Your task to perform on an android device: How much does a 3 bedroom apartment rent for in Denver? Image 0: 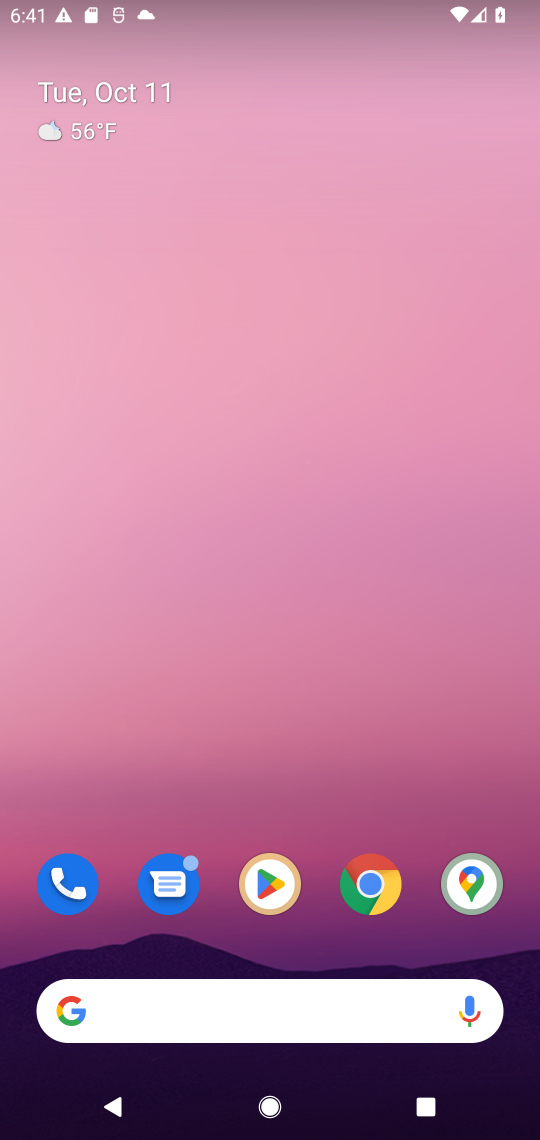
Step 0: drag from (330, 947) to (368, 63)
Your task to perform on an android device: How much does a 3 bedroom apartment rent for in Denver? Image 1: 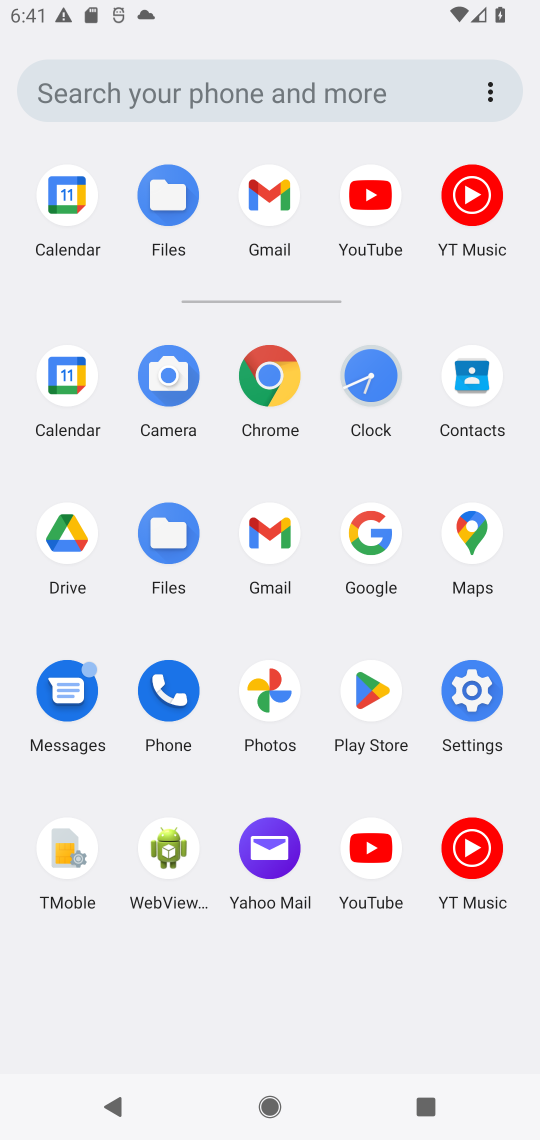
Step 1: click (273, 376)
Your task to perform on an android device: How much does a 3 bedroom apartment rent for in Denver? Image 2: 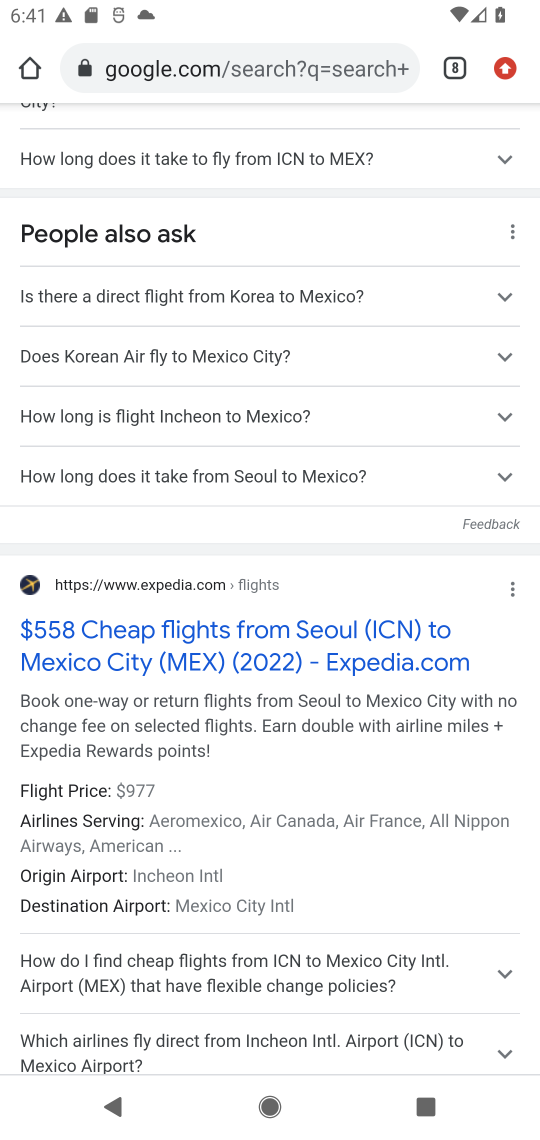
Step 2: drag from (282, 172) to (296, 869)
Your task to perform on an android device: How much does a 3 bedroom apartment rent for in Denver? Image 3: 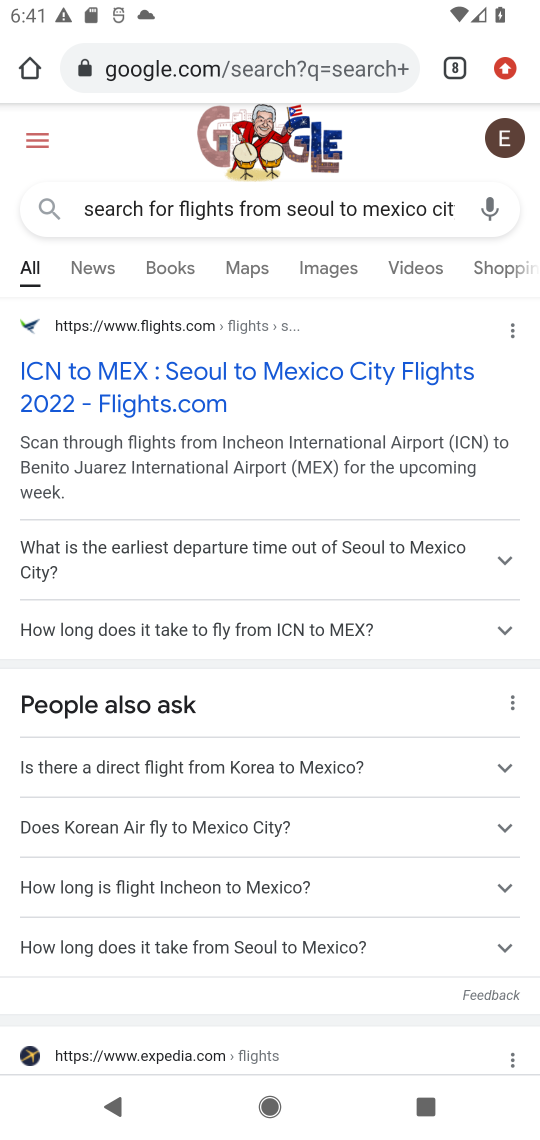
Step 3: click (305, 205)
Your task to perform on an android device: How much does a 3 bedroom apartment rent for in Denver? Image 4: 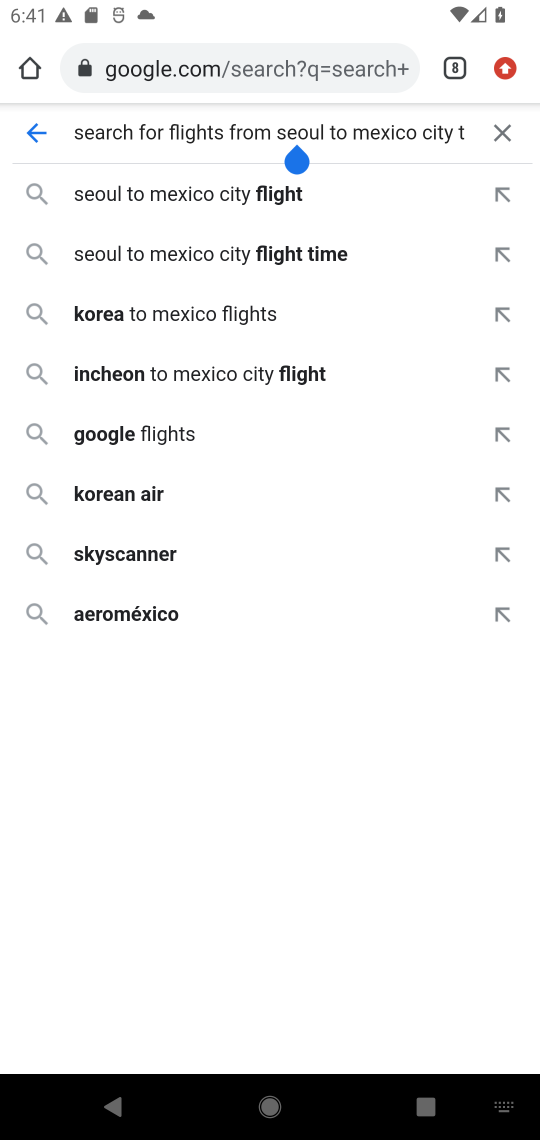
Step 4: click (498, 132)
Your task to perform on an android device: How much does a 3 bedroom apartment rent for in Denver? Image 5: 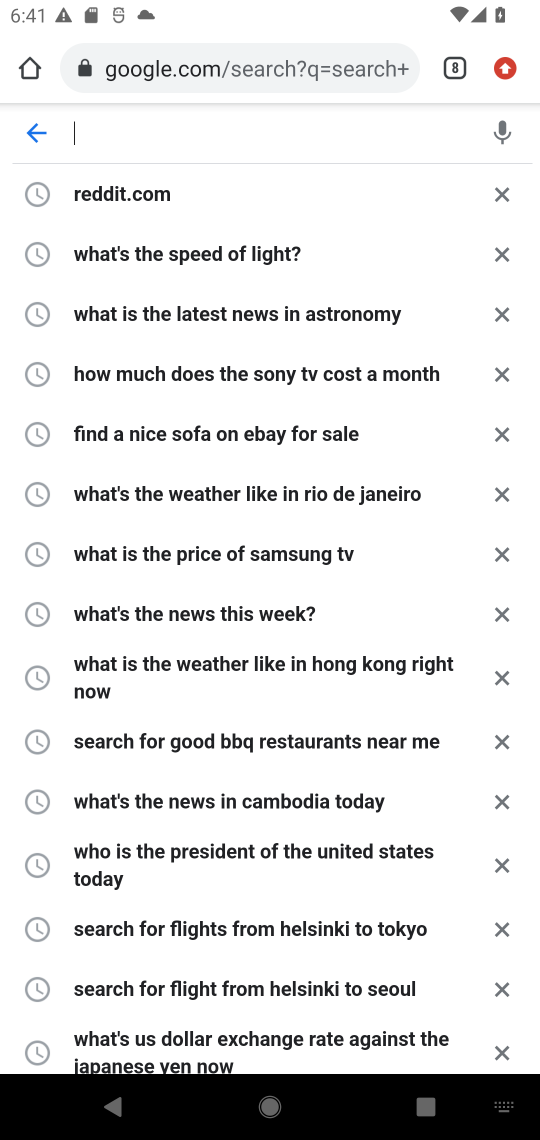
Step 5: type "How much does a 3 bedroom apartment rent for in Denver?"
Your task to perform on an android device: How much does a 3 bedroom apartment rent for in Denver? Image 6: 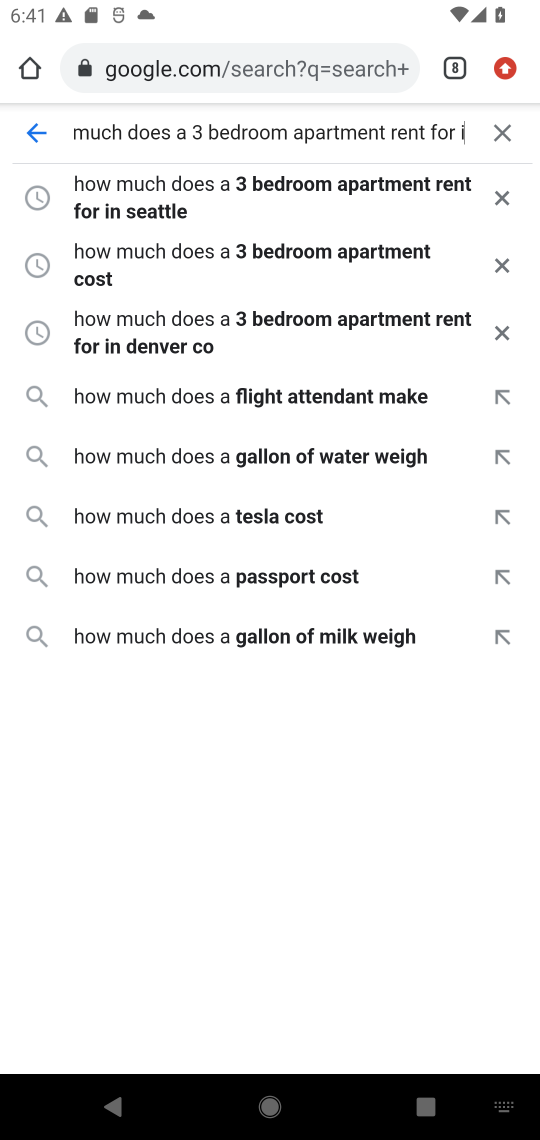
Step 6: type ""
Your task to perform on an android device: How much does a 3 bedroom apartment rent for in Denver? Image 7: 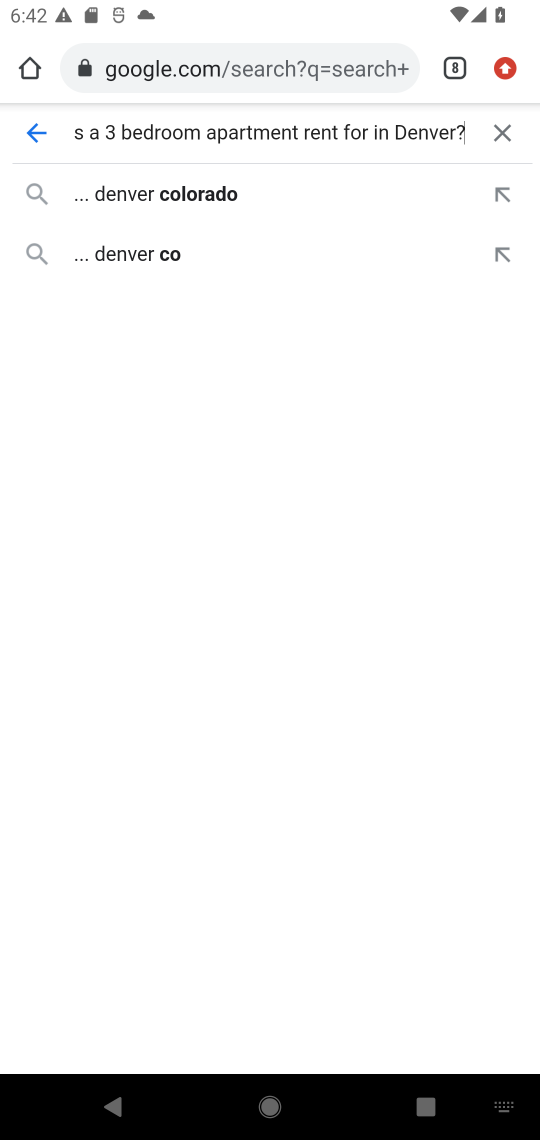
Step 7: click (227, 200)
Your task to perform on an android device: How much does a 3 bedroom apartment rent for in Denver? Image 8: 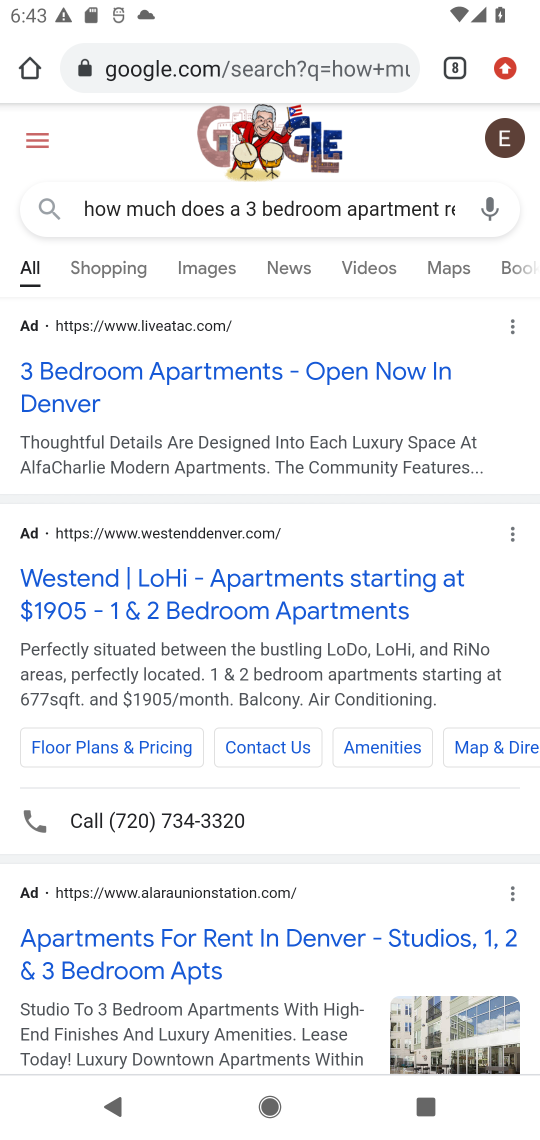
Step 8: click (203, 368)
Your task to perform on an android device: How much does a 3 bedroom apartment rent for in Denver? Image 9: 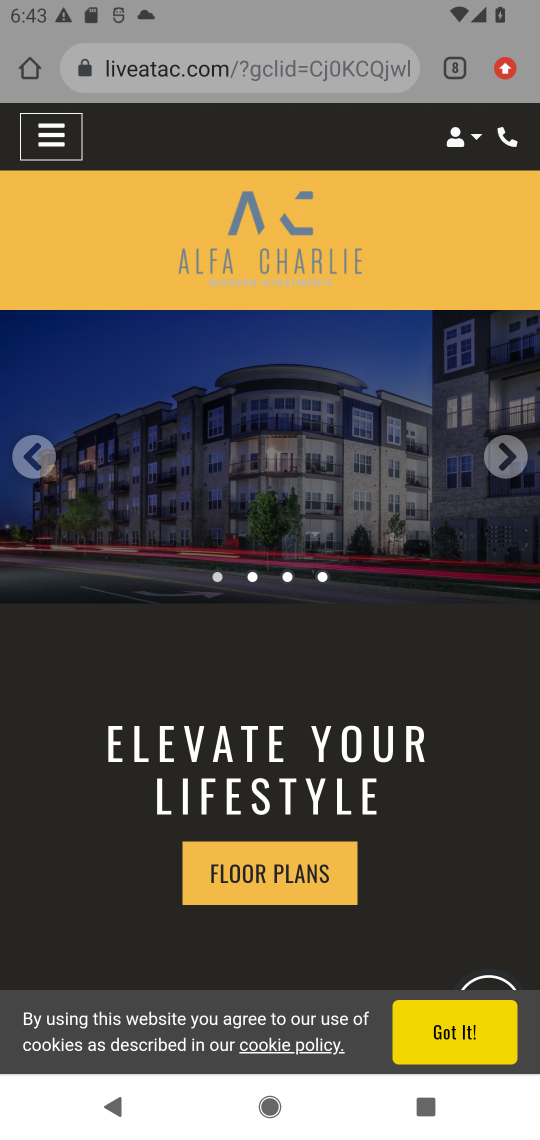
Step 9: task complete